Your task to perform on an android device: Open Google Chrome and open the bookmarks view Image 0: 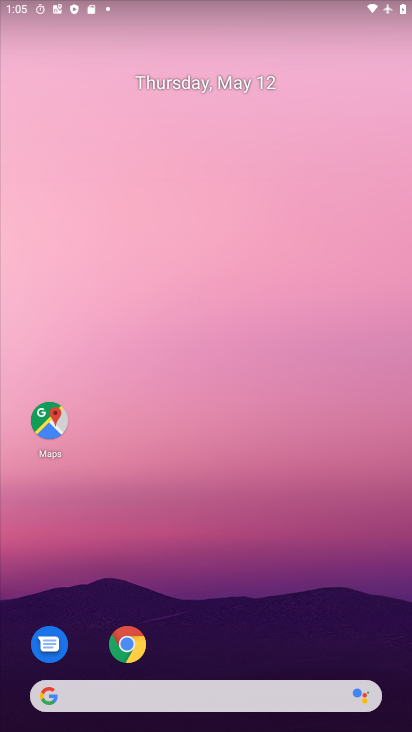
Step 0: click (133, 644)
Your task to perform on an android device: Open Google Chrome and open the bookmarks view Image 1: 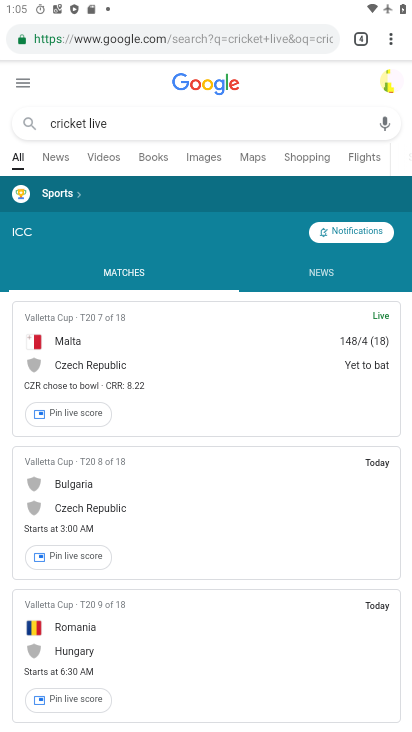
Step 1: click (388, 36)
Your task to perform on an android device: Open Google Chrome and open the bookmarks view Image 2: 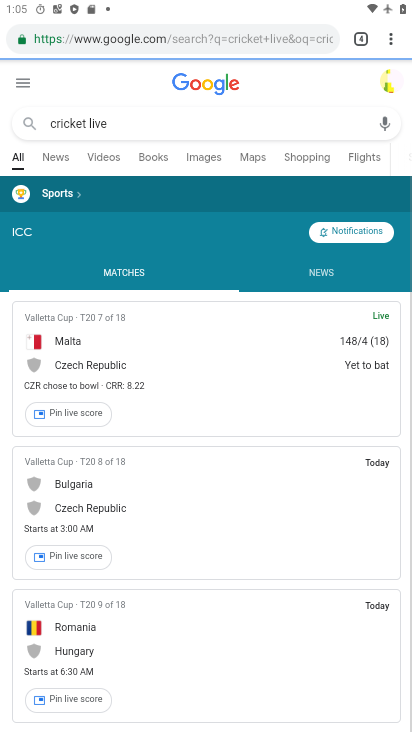
Step 2: click (387, 43)
Your task to perform on an android device: Open Google Chrome and open the bookmarks view Image 3: 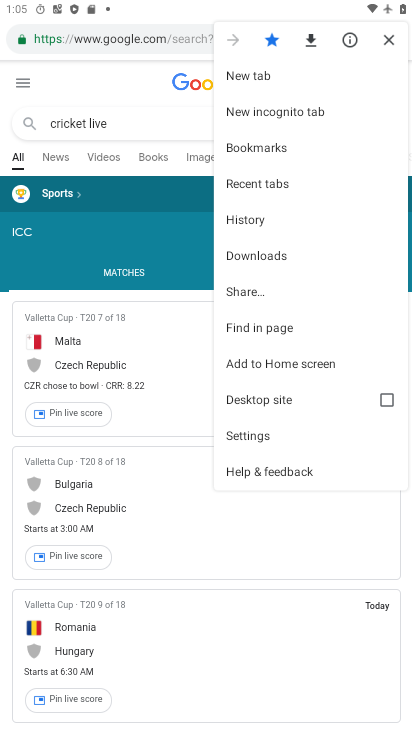
Step 3: click (267, 149)
Your task to perform on an android device: Open Google Chrome and open the bookmarks view Image 4: 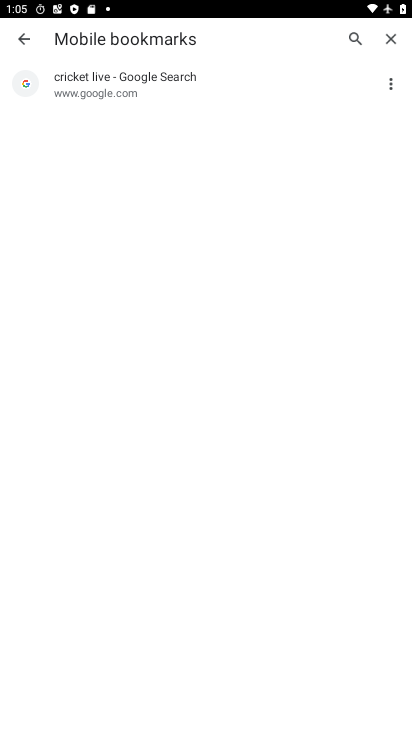
Step 4: click (142, 90)
Your task to perform on an android device: Open Google Chrome and open the bookmarks view Image 5: 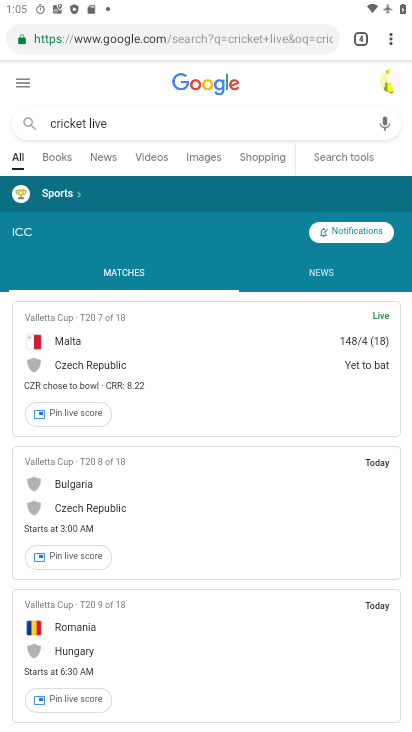
Step 5: task complete